Your task to perform on an android device: open app "Booking.com: Hotels and more" (install if not already installed) Image 0: 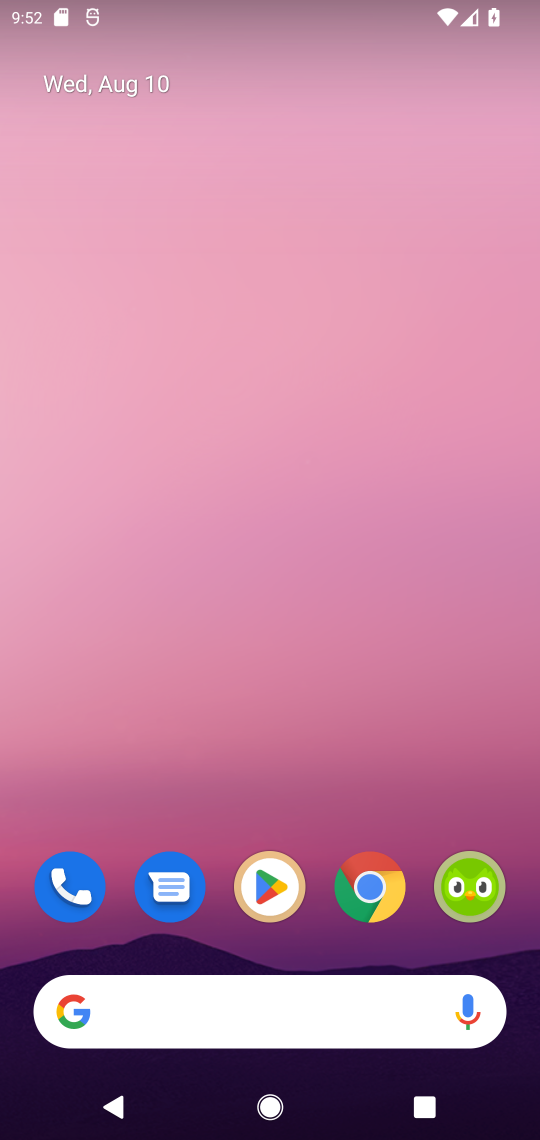
Step 0: click (280, 922)
Your task to perform on an android device: open app "Booking.com: Hotels and more" (install if not already installed) Image 1: 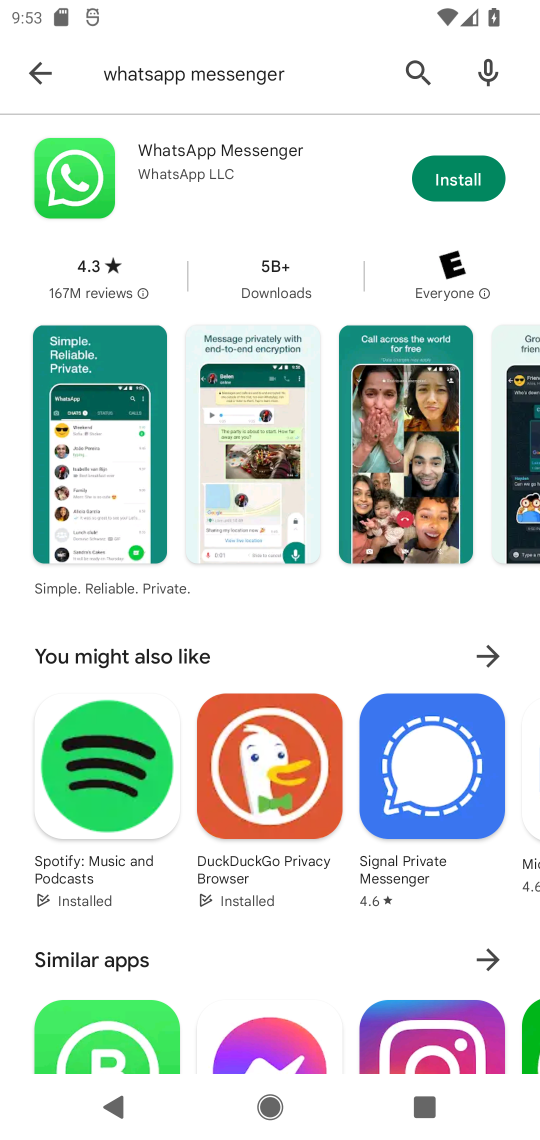
Step 1: click (404, 80)
Your task to perform on an android device: open app "Booking.com: Hotels and more" (install if not already installed) Image 2: 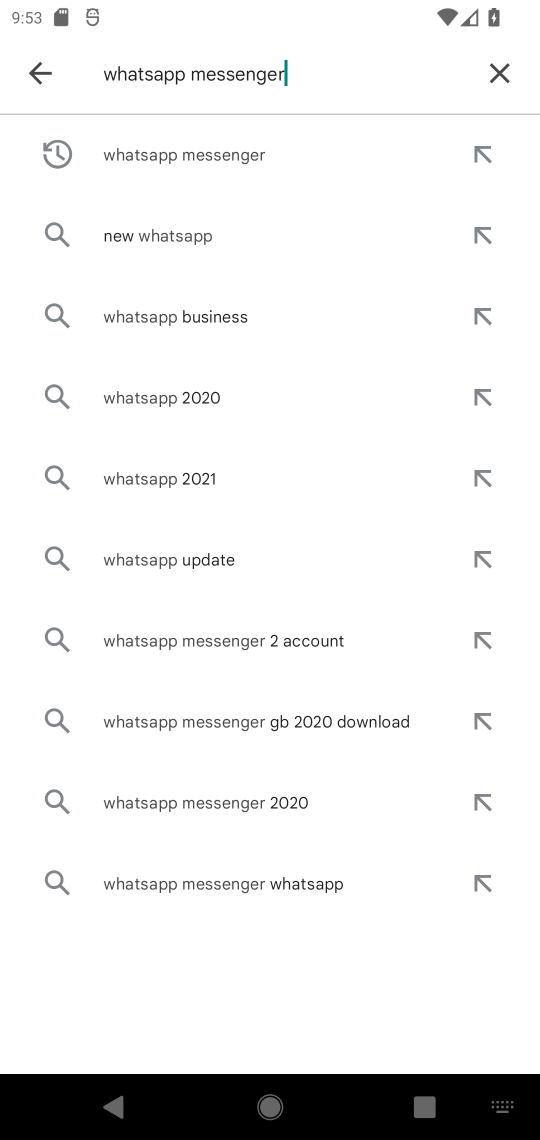
Step 2: click (495, 72)
Your task to perform on an android device: open app "Booking.com: Hotels and more" (install if not already installed) Image 3: 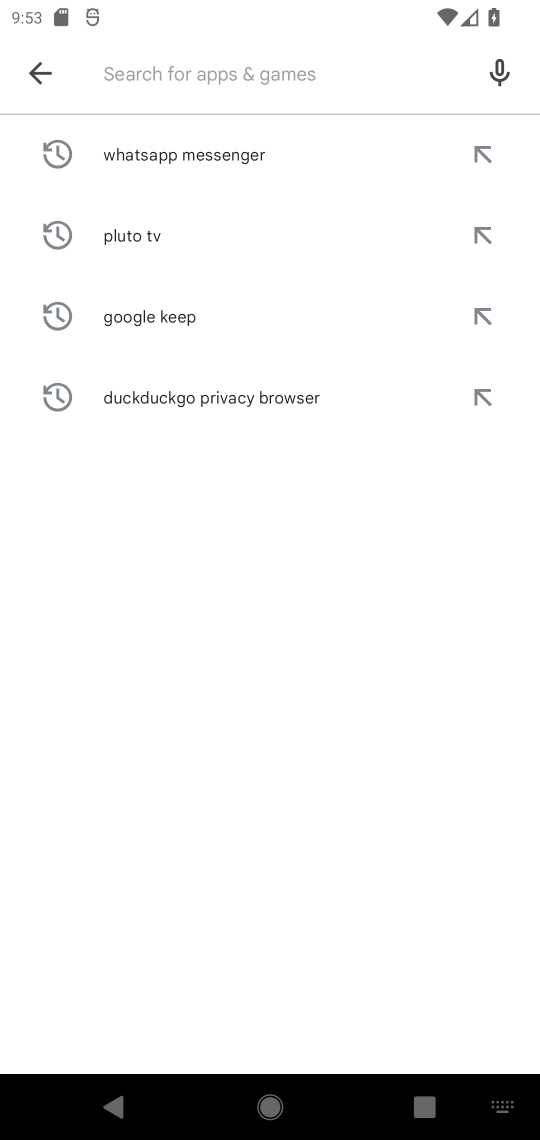
Step 3: type "Booking.com: Hotels and more"
Your task to perform on an android device: open app "Booking.com: Hotels and more" (install if not already installed) Image 4: 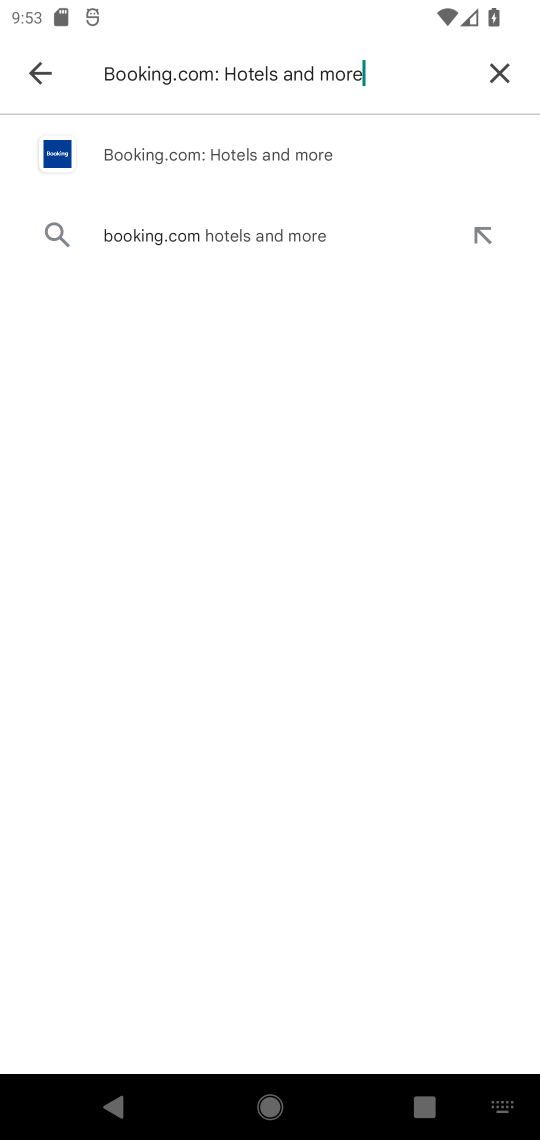
Step 4: click (135, 153)
Your task to perform on an android device: open app "Booking.com: Hotels and more" (install if not already installed) Image 5: 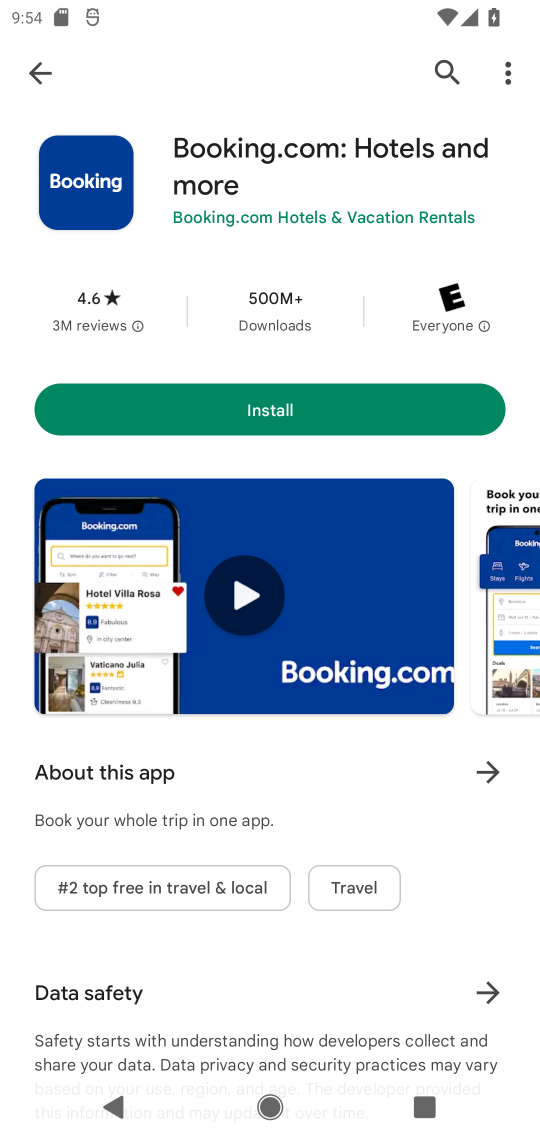
Step 5: click (251, 420)
Your task to perform on an android device: open app "Booking.com: Hotels and more" (install if not already installed) Image 6: 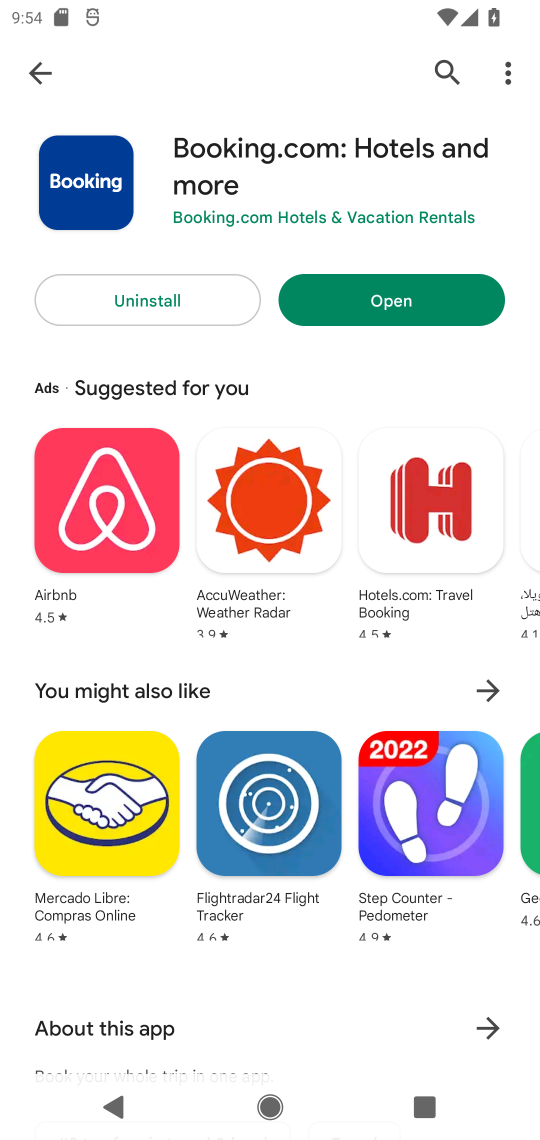
Step 6: click (396, 279)
Your task to perform on an android device: open app "Booking.com: Hotels and more" (install if not already installed) Image 7: 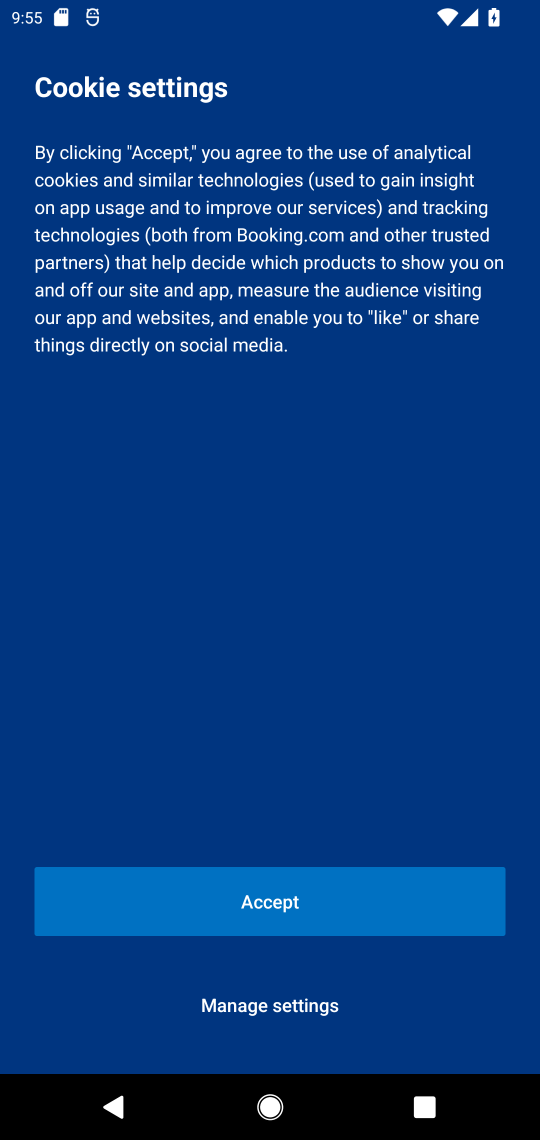
Step 7: task complete